Your task to perform on an android device: turn smart compose on in the gmail app Image 0: 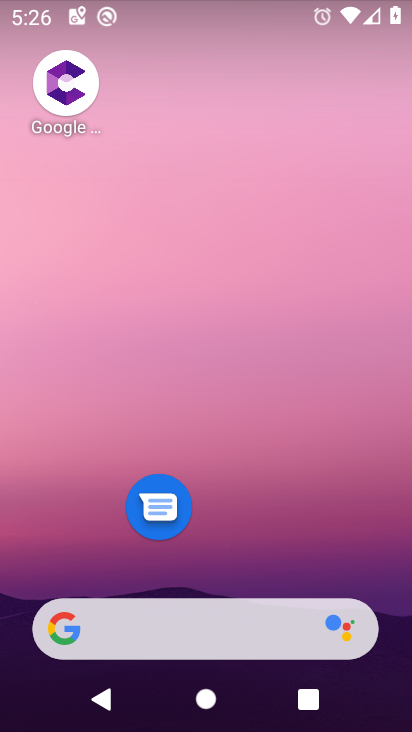
Step 0: drag from (298, 562) to (290, 105)
Your task to perform on an android device: turn smart compose on in the gmail app Image 1: 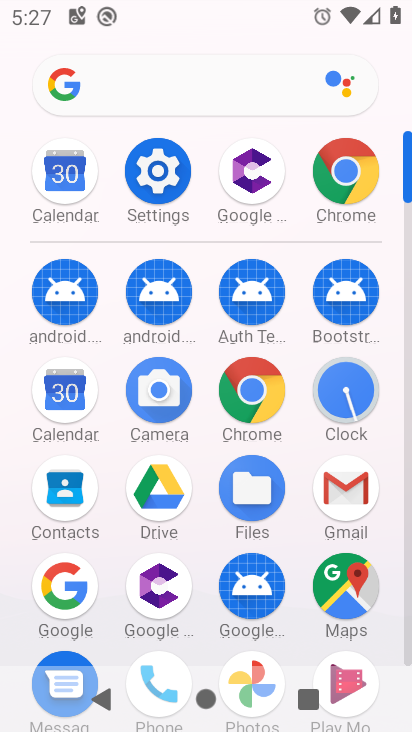
Step 1: press home button
Your task to perform on an android device: turn smart compose on in the gmail app Image 2: 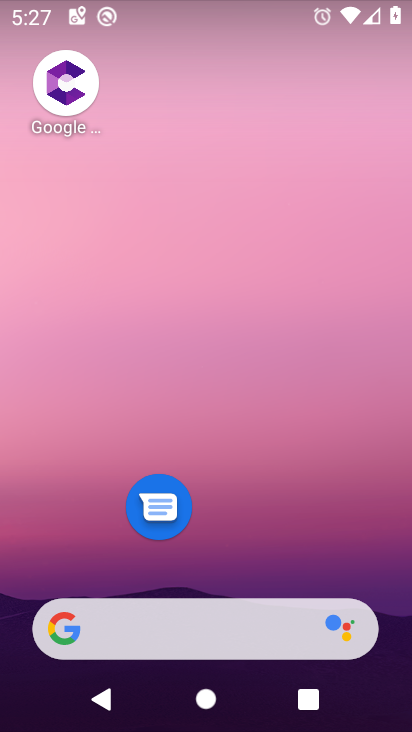
Step 2: drag from (288, 572) to (324, 107)
Your task to perform on an android device: turn smart compose on in the gmail app Image 3: 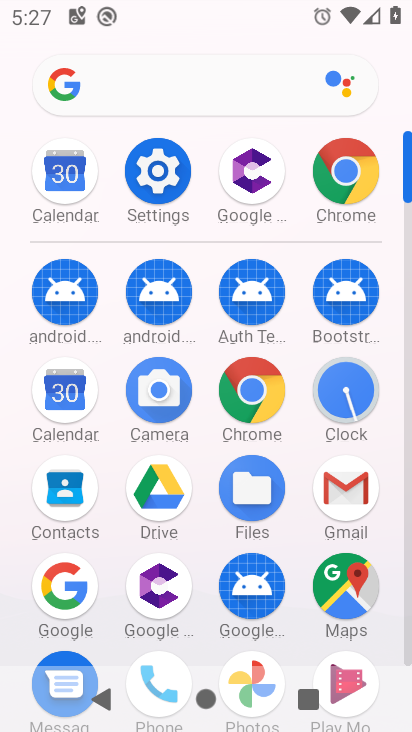
Step 3: click (371, 479)
Your task to perform on an android device: turn smart compose on in the gmail app Image 4: 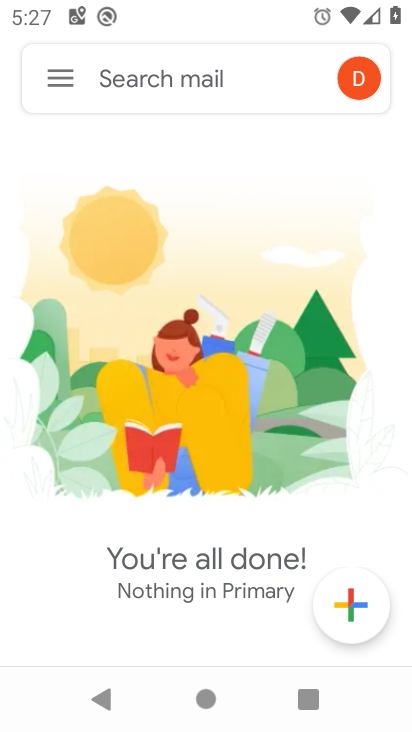
Step 4: click (71, 68)
Your task to perform on an android device: turn smart compose on in the gmail app Image 5: 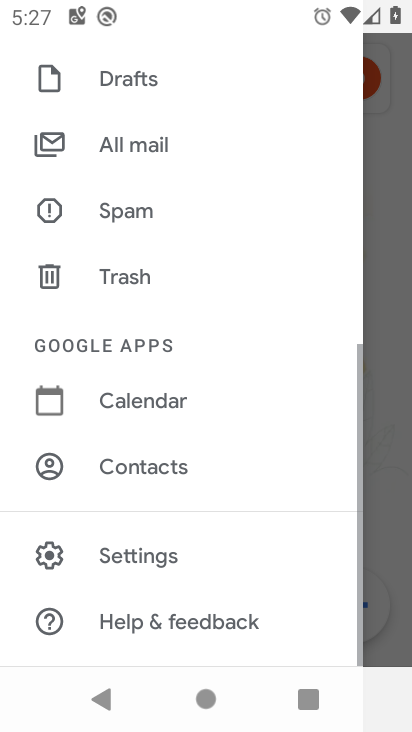
Step 5: drag from (226, 543) to (217, 196)
Your task to perform on an android device: turn smart compose on in the gmail app Image 6: 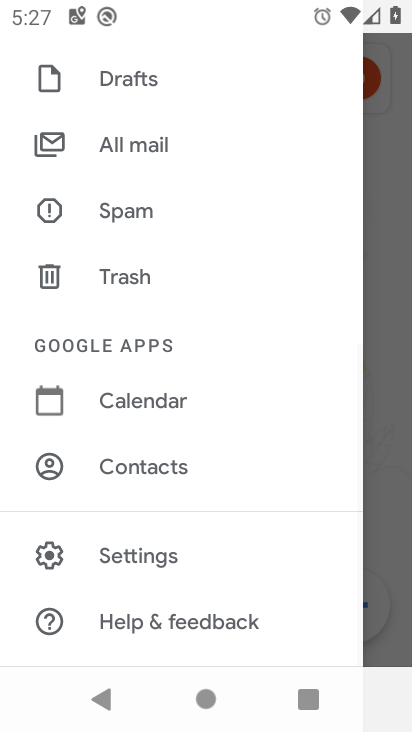
Step 6: click (105, 559)
Your task to perform on an android device: turn smart compose on in the gmail app Image 7: 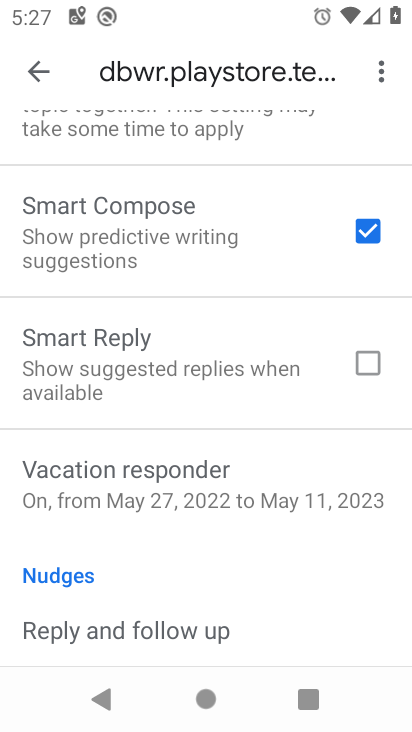
Step 7: task complete